Your task to perform on an android device: empty trash in google photos Image 0: 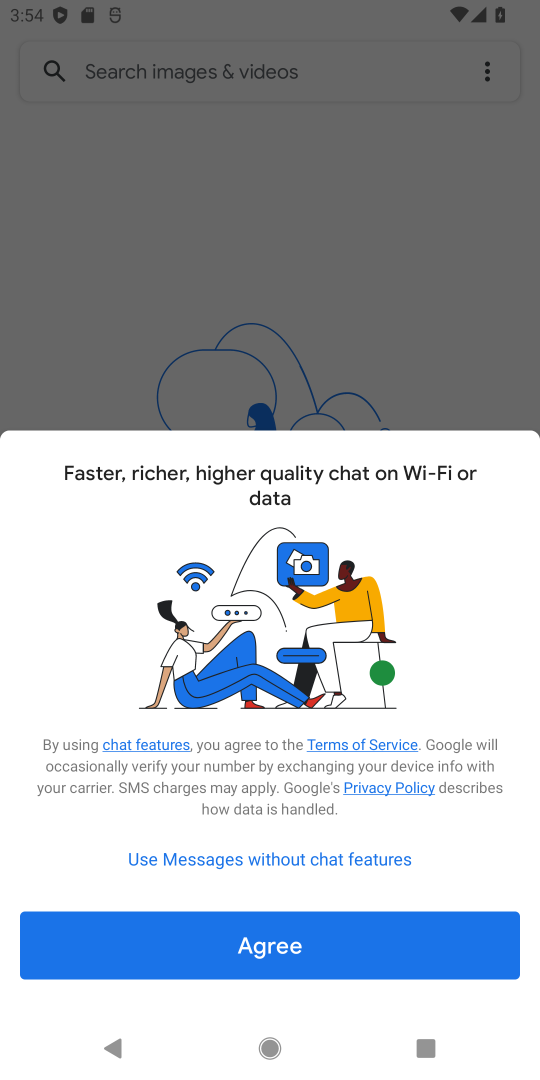
Step 0: press home button
Your task to perform on an android device: empty trash in google photos Image 1: 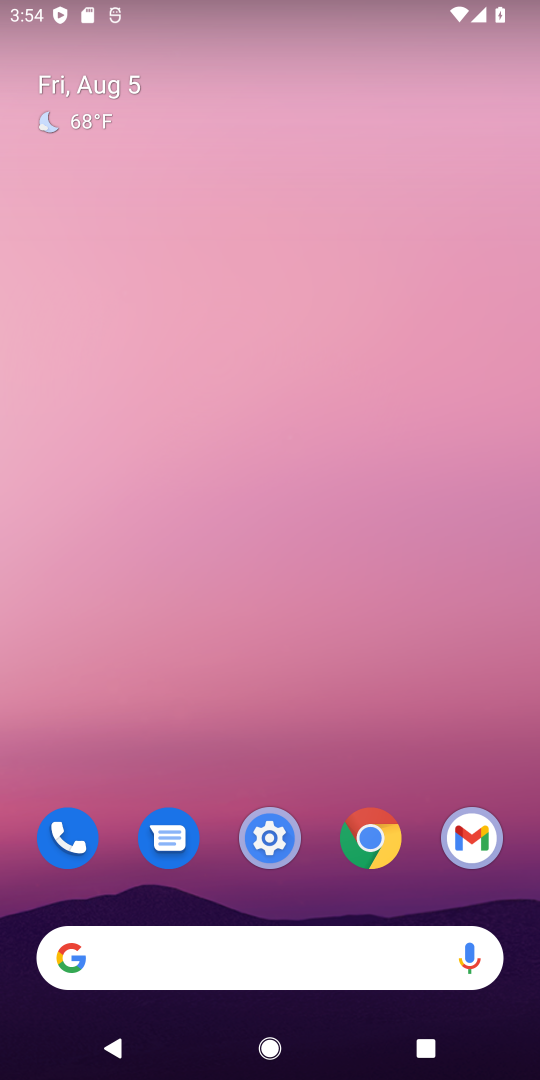
Step 1: drag from (284, 963) to (299, 381)
Your task to perform on an android device: empty trash in google photos Image 2: 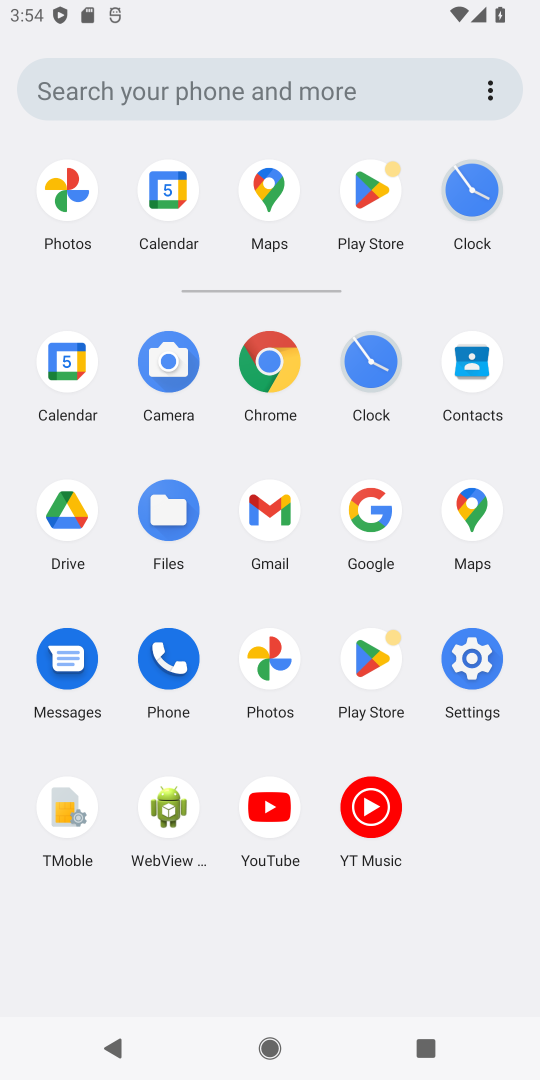
Step 2: click (265, 654)
Your task to perform on an android device: empty trash in google photos Image 3: 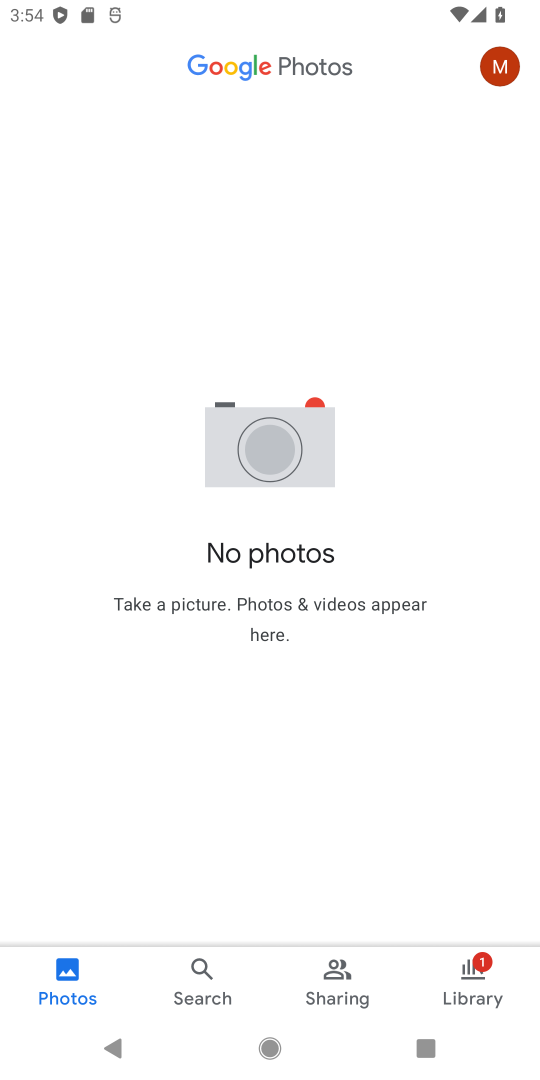
Step 3: click (495, 56)
Your task to perform on an android device: empty trash in google photos Image 4: 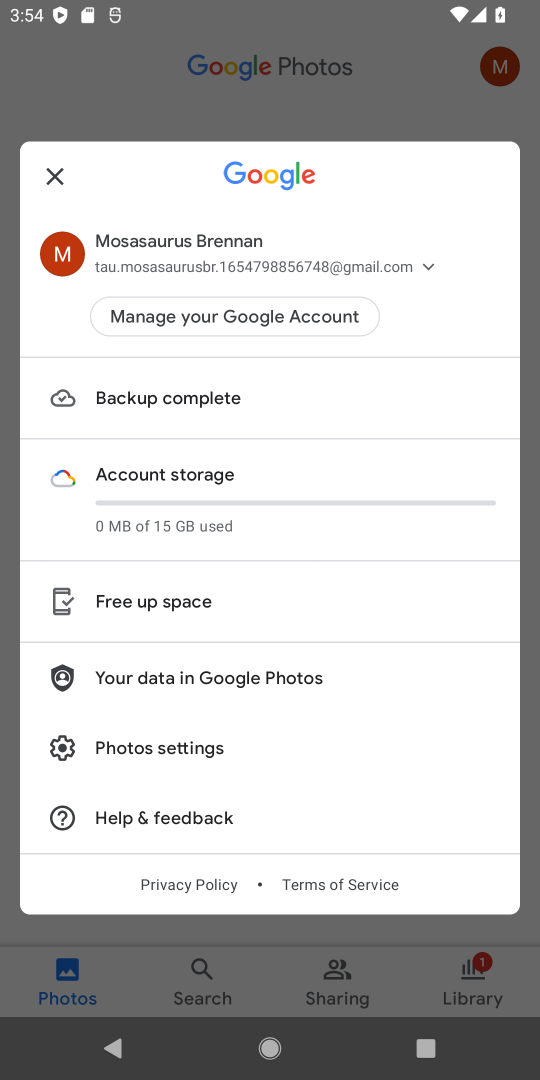
Step 4: click (183, 738)
Your task to perform on an android device: empty trash in google photos Image 5: 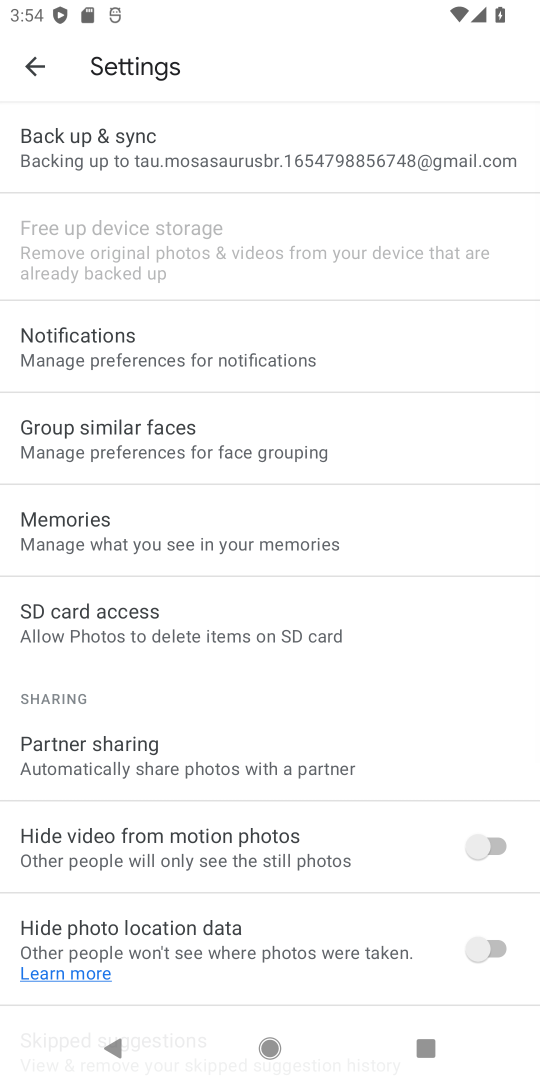
Step 5: drag from (223, 843) to (312, 226)
Your task to perform on an android device: empty trash in google photos Image 6: 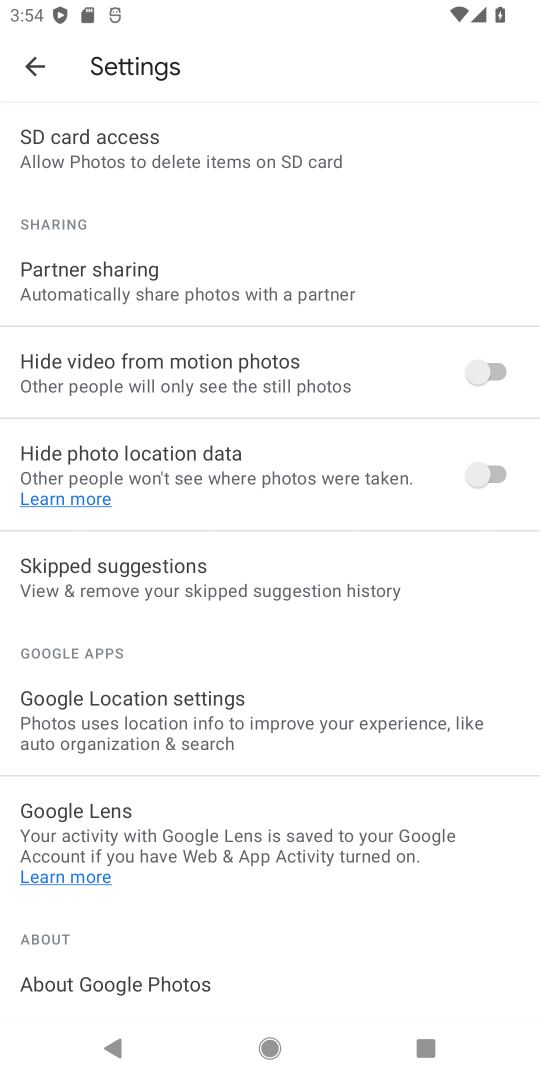
Step 6: click (18, 56)
Your task to perform on an android device: empty trash in google photos Image 7: 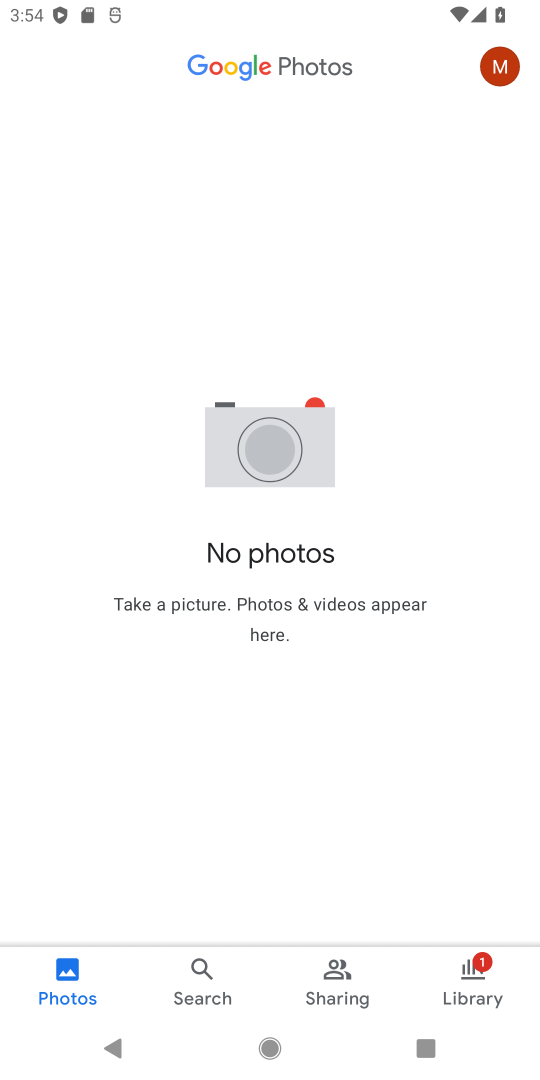
Step 7: click (197, 978)
Your task to perform on an android device: empty trash in google photos Image 8: 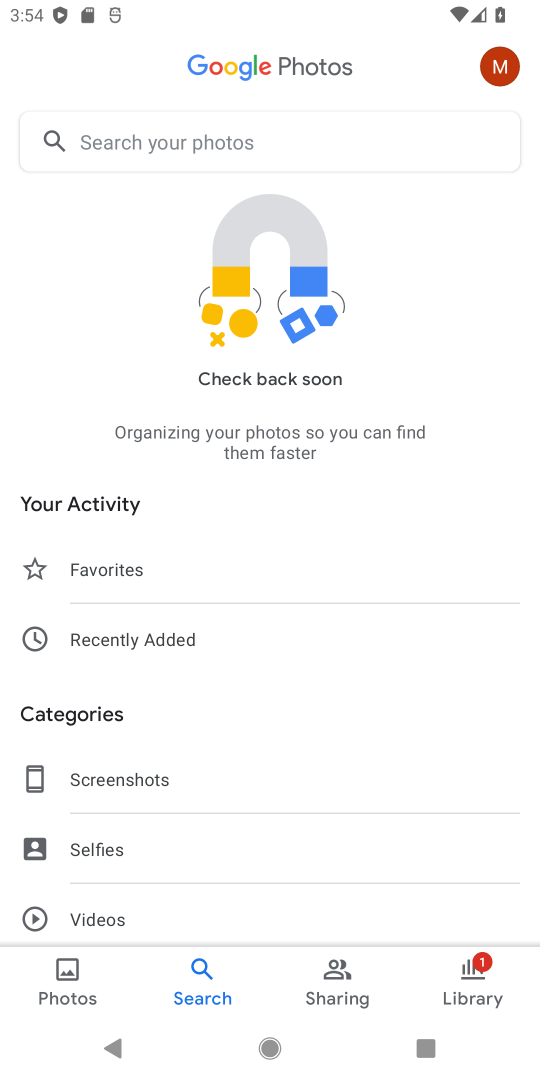
Step 8: drag from (172, 891) to (305, 341)
Your task to perform on an android device: empty trash in google photos Image 9: 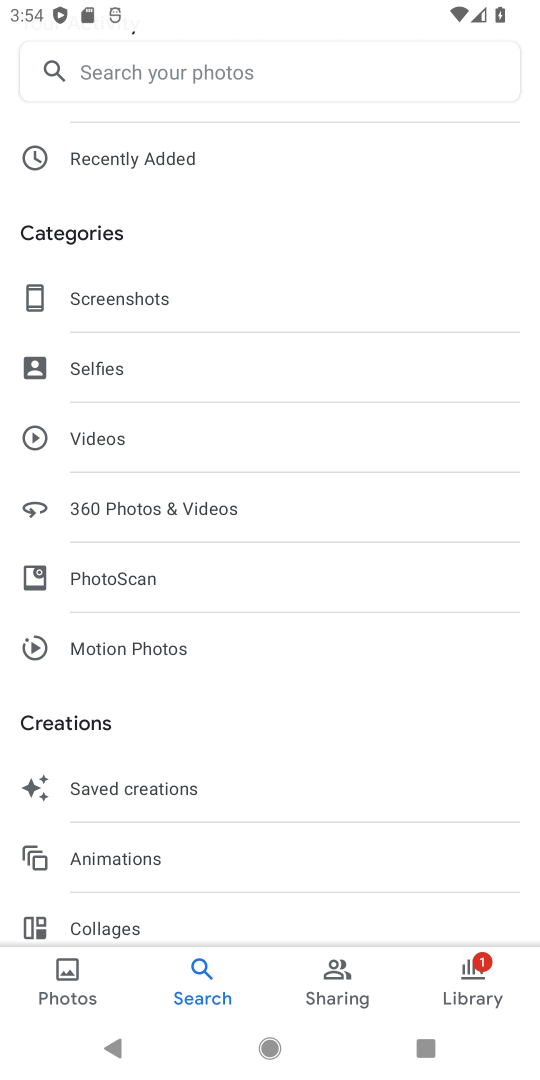
Step 9: drag from (316, 827) to (385, 228)
Your task to perform on an android device: empty trash in google photos Image 10: 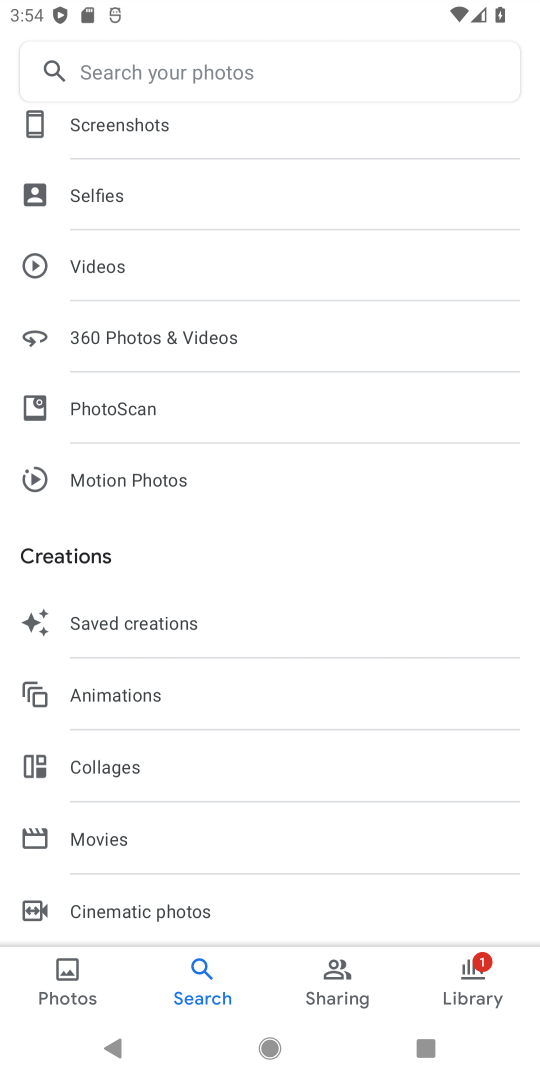
Step 10: drag from (174, 876) to (282, 272)
Your task to perform on an android device: empty trash in google photos Image 11: 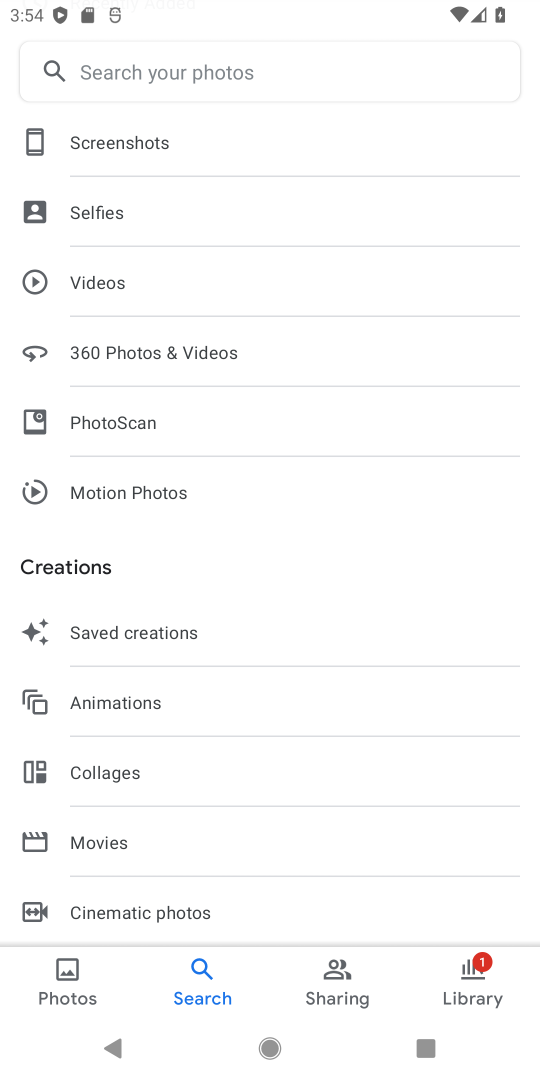
Step 11: drag from (312, 191) to (214, 856)
Your task to perform on an android device: empty trash in google photos Image 12: 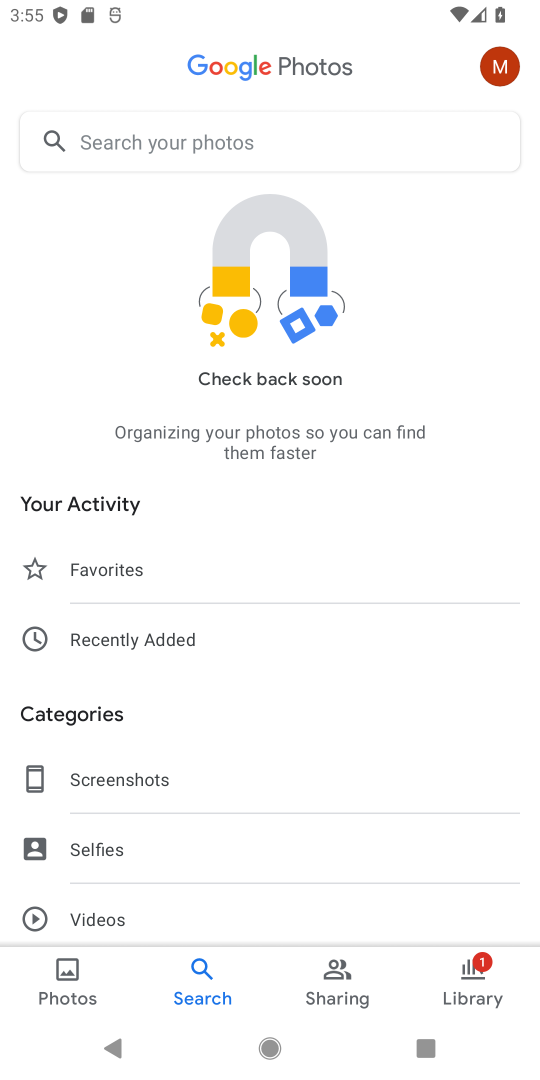
Step 12: click (151, 127)
Your task to perform on an android device: empty trash in google photos Image 13: 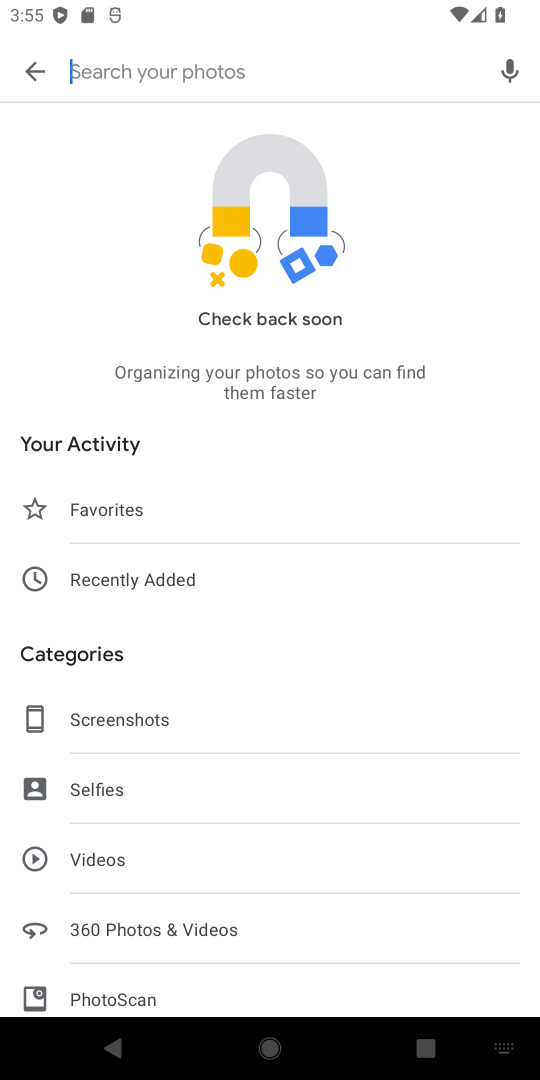
Step 13: type "trash"
Your task to perform on an android device: empty trash in google photos Image 14: 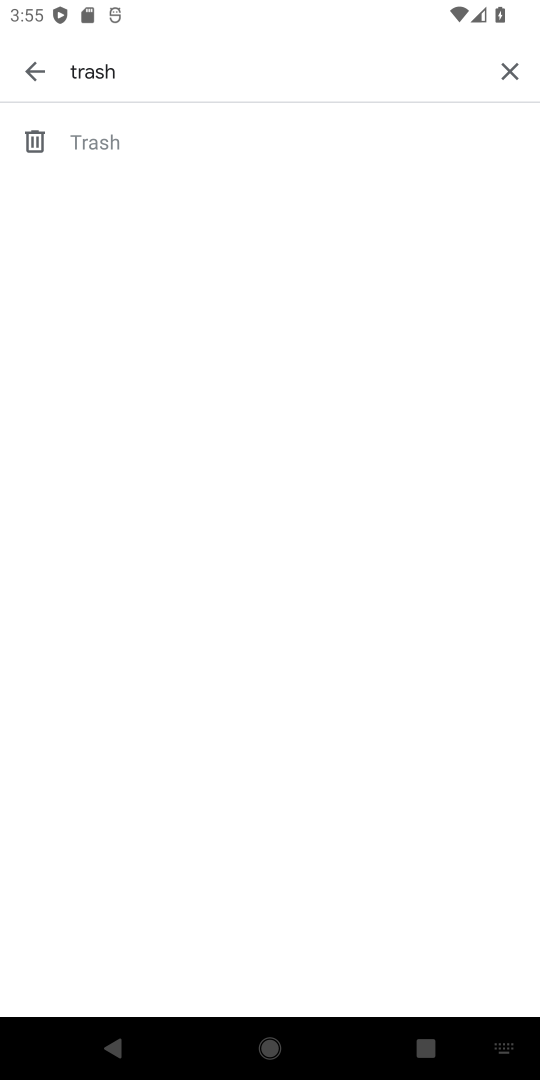
Step 14: click (115, 128)
Your task to perform on an android device: empty trash in google photos Image 15: 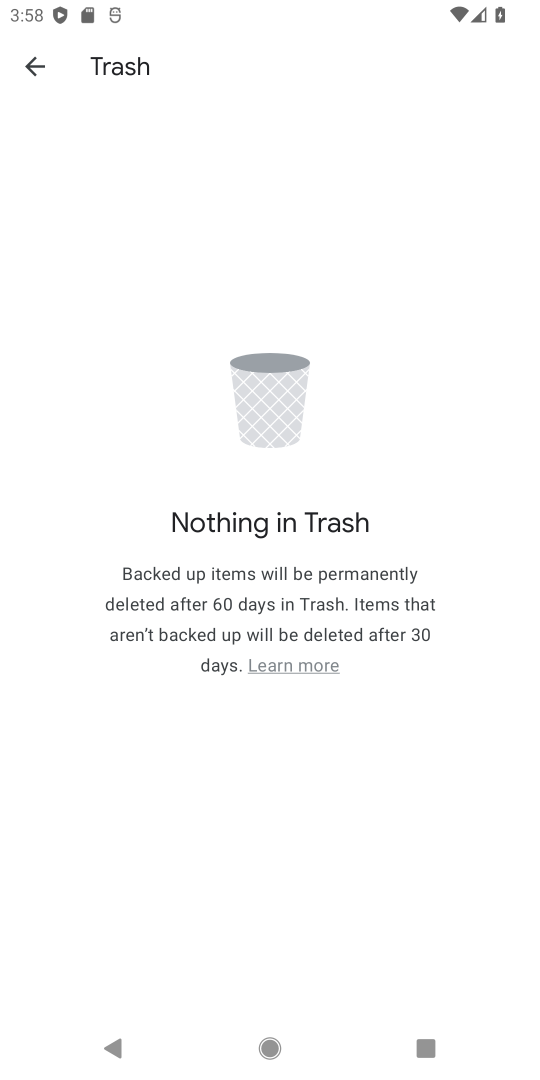
Step 15: task complete